Your task to perform on an android device: open app "Venmo" (install if not already installed) Image 0: 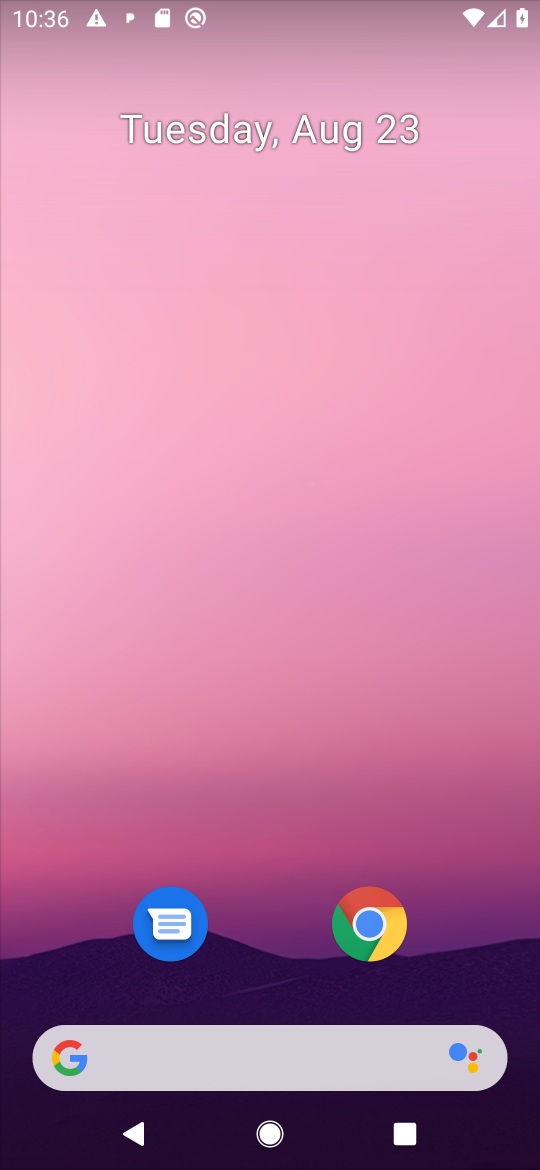
Step 0: press home button
Your task to perform on an android device: open app "Venmo" (install if not already installed) Image 1: 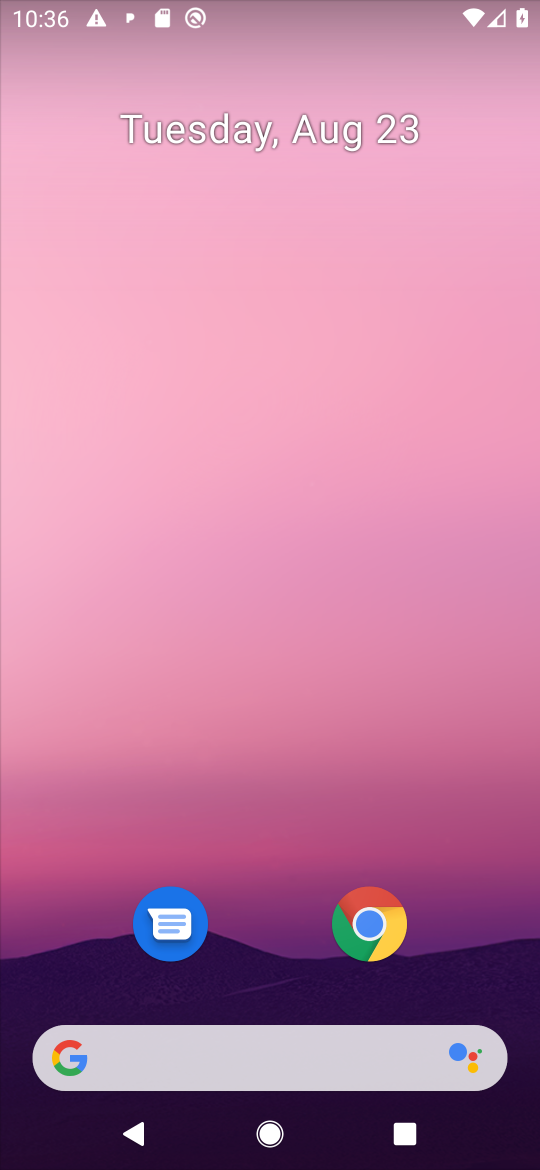
Step 1: drag from (501, 908) to (504, 203)
Your task to perform on an android device: open app "Venmo" (install if not already installed) Image 2: 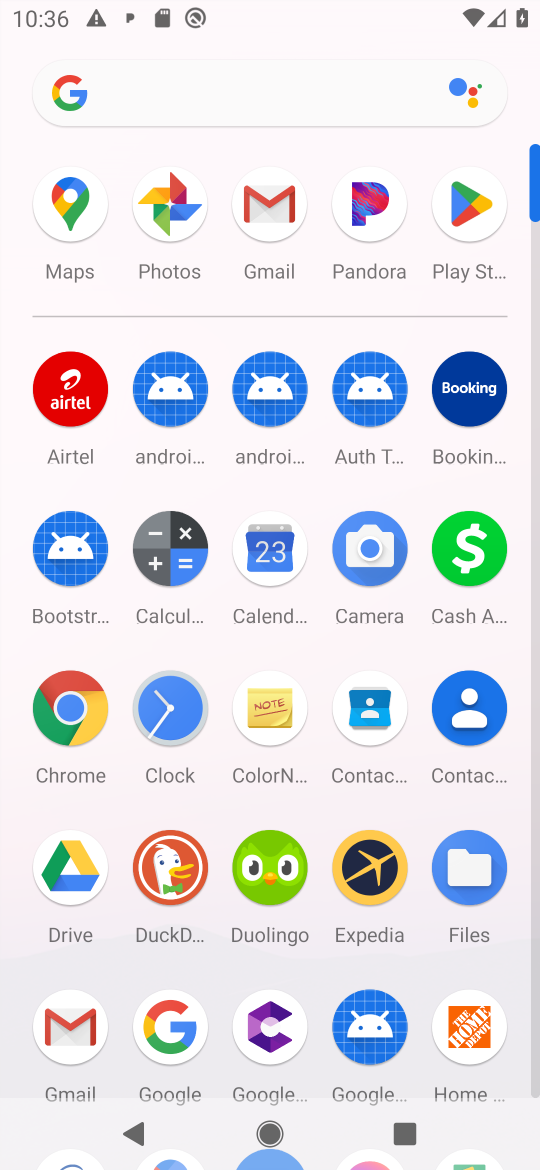
Step 2: click (466, 194)
Your task to perform on an android device: open app "Venmo" (install if not already installed) Image 3: 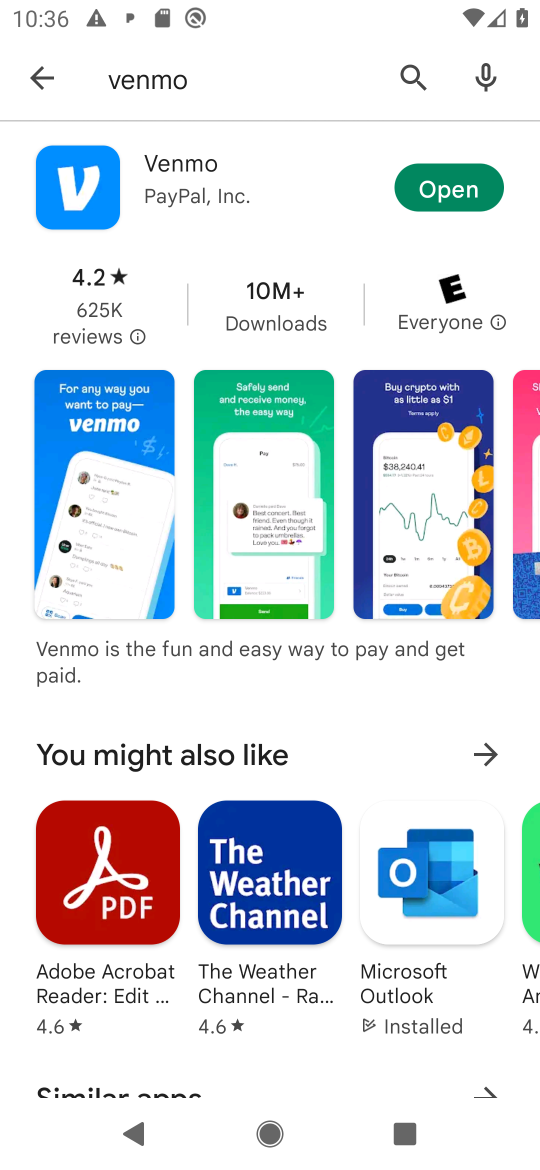
Step 3: task complete